Your task to perform on an android device: Show the shopping cart on amazon. Search for razer nari on amazon, select the first entry, add it to the cart, then select checkout. Image 0: 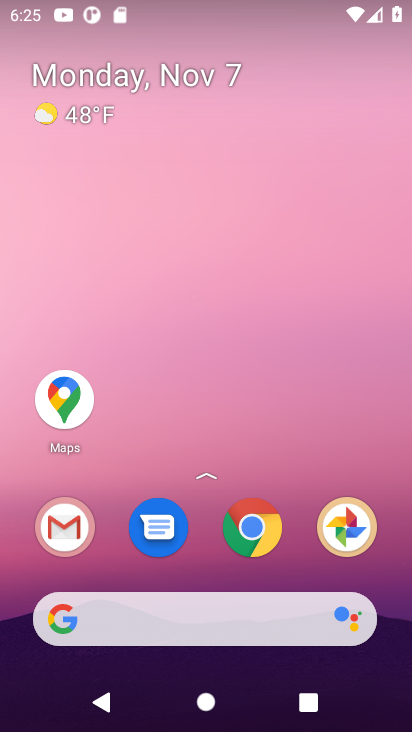
Step 0: click (248, 538)
Your task to perform on an android device: Show the shopping cart on amazon. Search for razer nari on amazon, select the first entry, add it to the cart, then select checkout. Image 1: 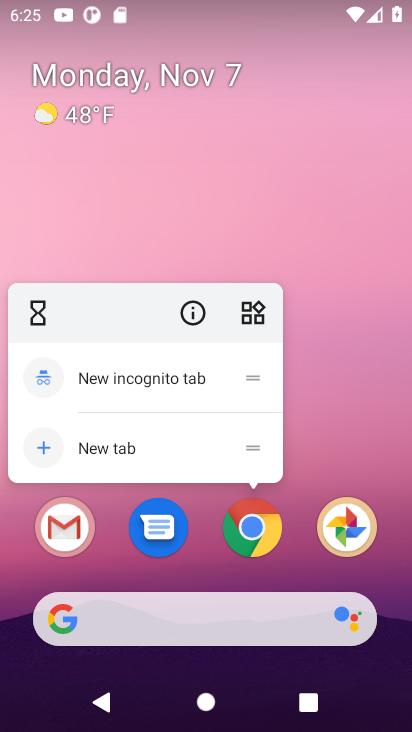
Step 1: click (248, 538)
Your task to perform on an android device: Show the shopping cart on amazon. Search for razer nari on amazon, select the first entry, add it to the cart, then select checkout. Image 2: 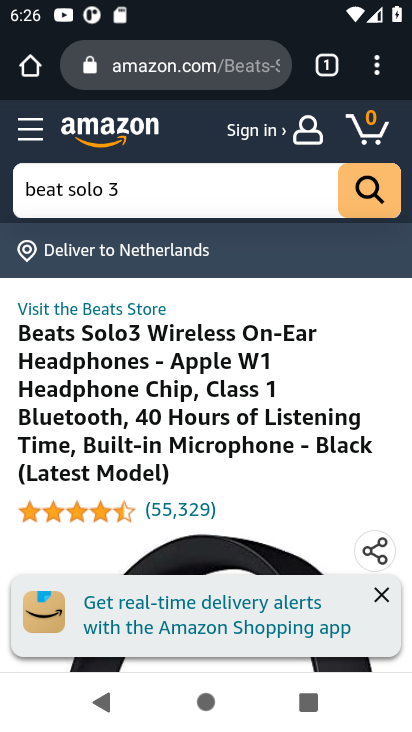
Step 2: click (144, 186)
Your task to perform on an android device: Show the shopping cart on amazon. Search for razer nari on amazon, select the first entry, add it to the cart, then select checkout. Image 3: 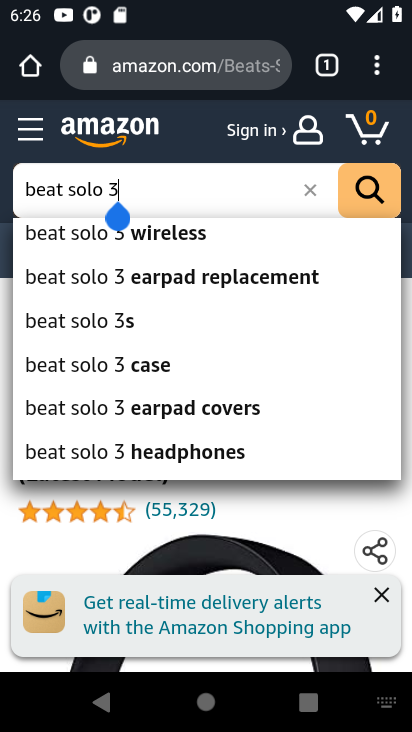
Step 3: click (304, 192)
Your task to perform on an android device: Show the shopping cart on amazon. Search for razer nari on amazon, select the first entry, add it to the cart, then select checkout. Image 4: 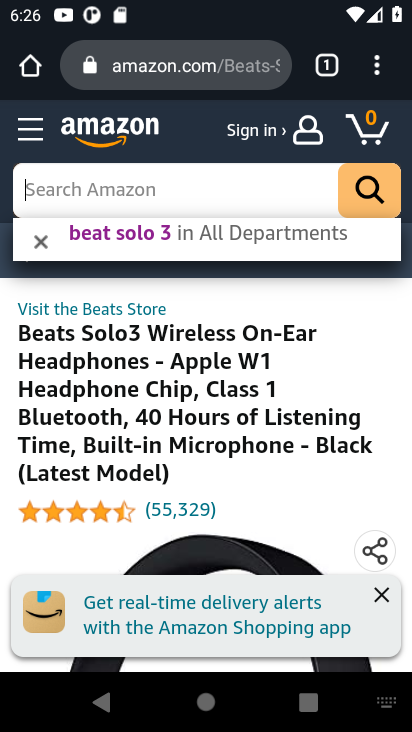
Step 4: type "razer nari"
Your task to perform on an android device: Show the shopping cart on amazon. Search for razer nari on amazon, select the first entry, add it to the cart, then select checkout. Image 5: 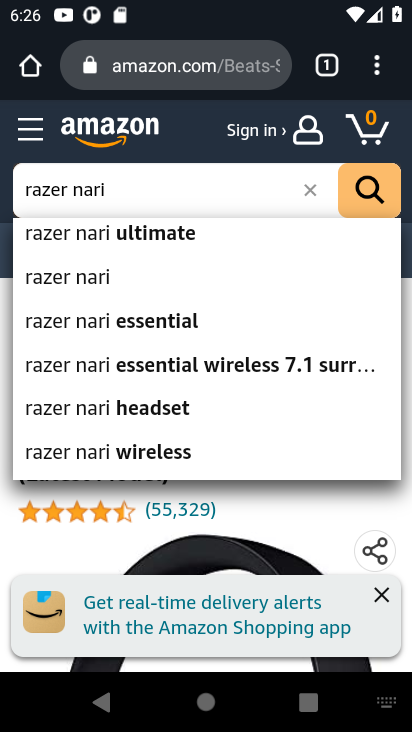
Step 5: press enter
Your task to perform on an android device: Show the shopping cart on amazon. Search for razer nari on amazon, select the first entry, add it to the cart, then select checkout. Image 6: 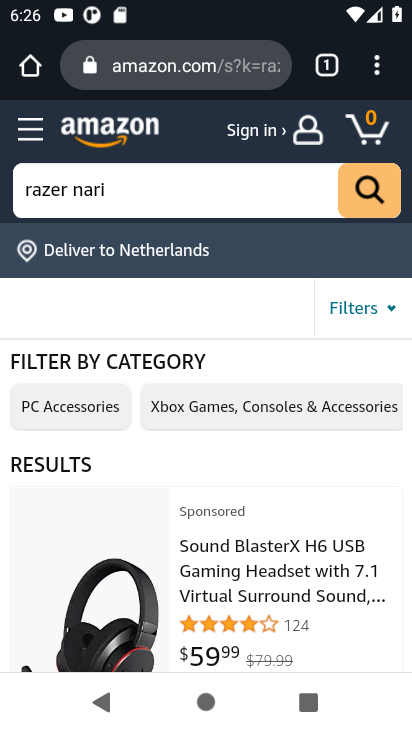
Step 6: click (146, 604)
Your task to perform on an android device: Show the shopping cart on amazon. Search for razer nari on amazon, select the first entry, add it to the cart, then select checkout. Image 7: 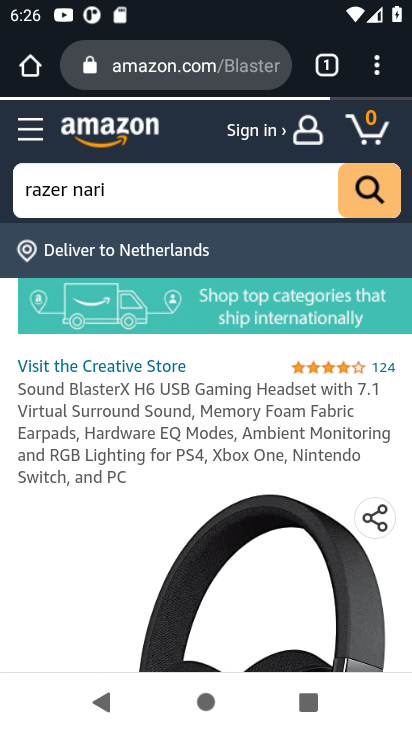
Step 7: drag from (273, 592) to (167, 249)
Your task to perform on an android device: Show the shopping cart on amazon. Search for razer nari on amazon, select the first entry, add it to the cart, then select checkout. Image 8: 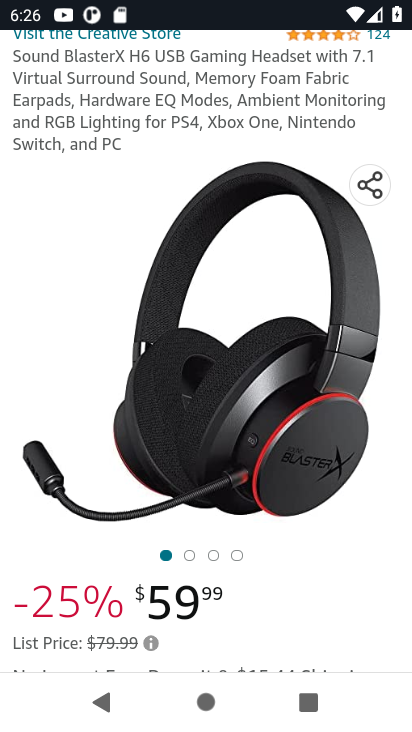
Step 8: drag from (231, 548) to (153, 229)
Your task to perform on an android device: Show the shopping cart on amazon. Search for razer nari on amazon, select the first entry, add it to the cart, then select checkout. Image 9: 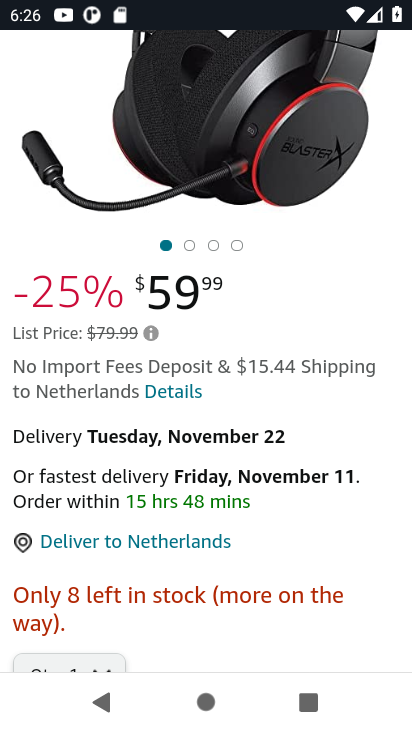
Step 9: drag from (251, 593) to (142, 38)
Your task to perform on an android device: Show the shopping cart on amazon. Search for razer nari on amazon, select the first entry, add it to the cart, then select checkout. Image 10: 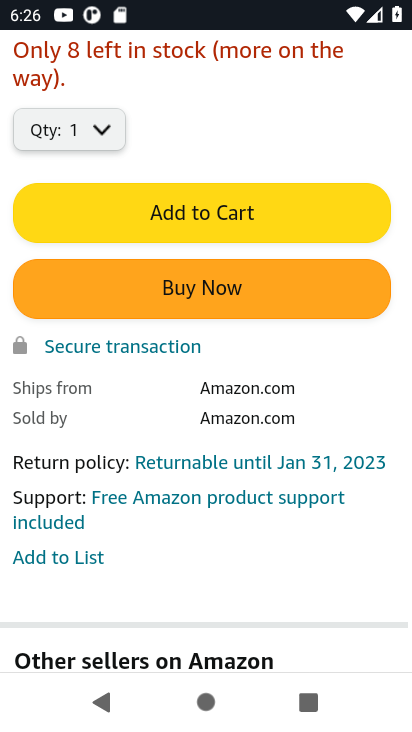
Step 10: click (209, 222)
Your task to perform on an android device: Show the shopping cart on amazon. Search for razer nari on amazon, select the first entry, add it to the cart, then select checkout. Image 11: 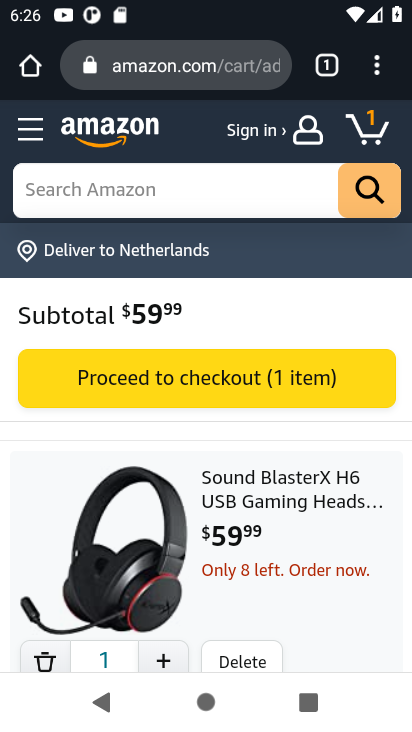
Step 11: click (200, 392)
Your task to perform on an android device: Show the shopping cart on amazon. Search for razer nari on amazon, select the first entry, add it to the cart, then select checkout. Image 12: 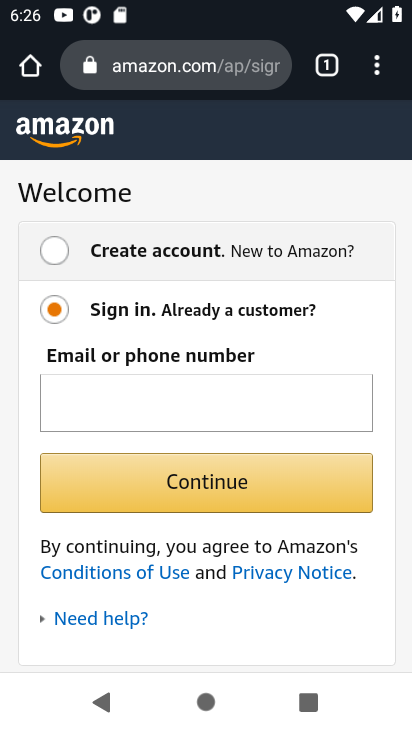
Step 12: task complete